Your task to perform on an android device: move a message to another label in the gmail app Image 0: 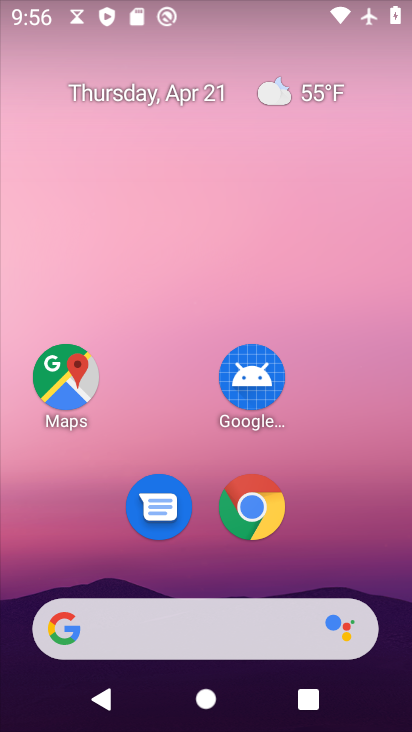
Step 0: drag from (344, 542) to (344, 184)
Your task to perform on an android device: move a message to another label in the gmail app Image 1: 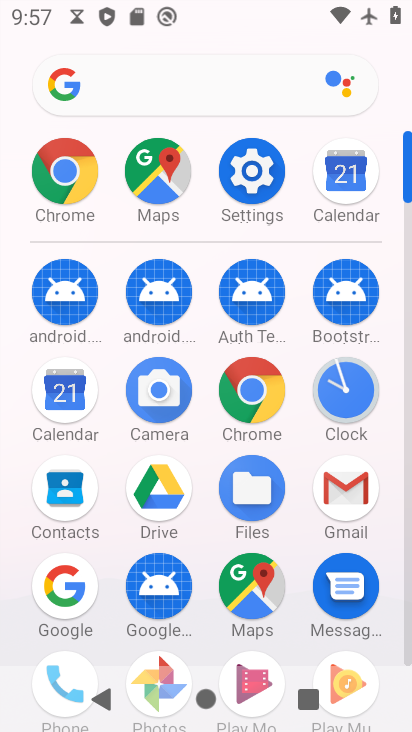
Step 1: click (348, 481)
Your task to perform on an android device: move a message to another label in the gmail app Image 2: 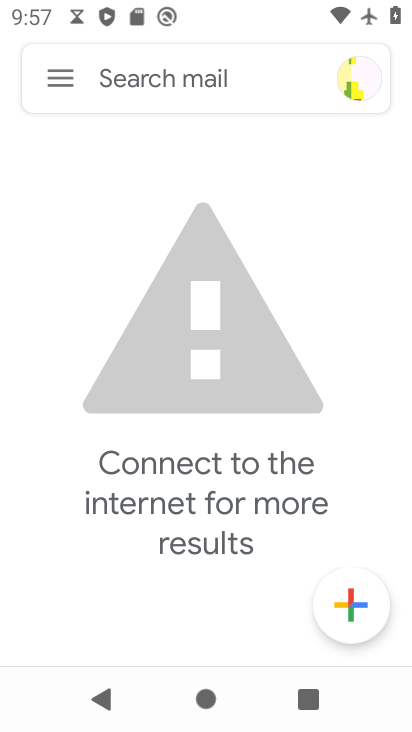
Step 2: click (52, 86)
Your task to perform on an android device: move a message to another label in the gmail app Image 3: 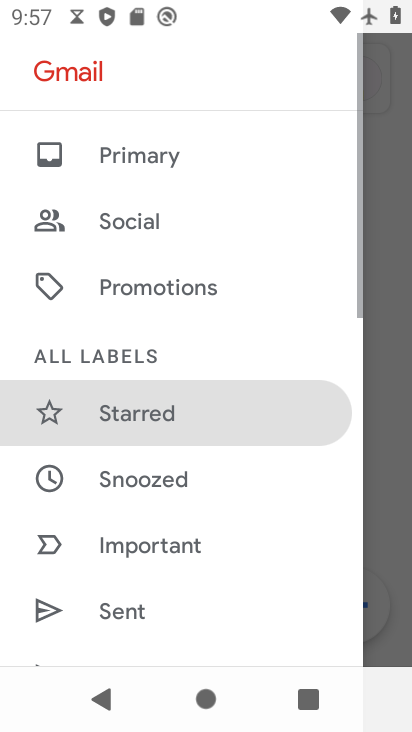
Step 3: drag from (172, 585) to (210, 151)
Your task to perform on an android device: move a message to another label in the gmail app Image 4: 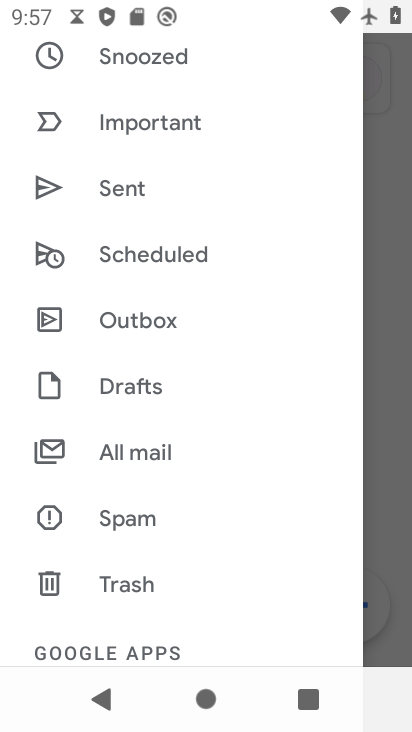
Step 4: click (128, 442)
Your task to perform on an android device: move a message to another label in the gmail app Image 5: 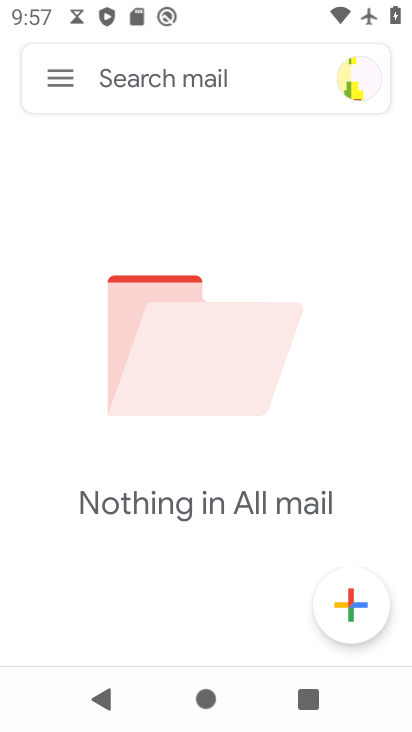
Step 5: click (43, 64)
Your task to perform on an android device: move a message to another label in the gmail app Image 6: 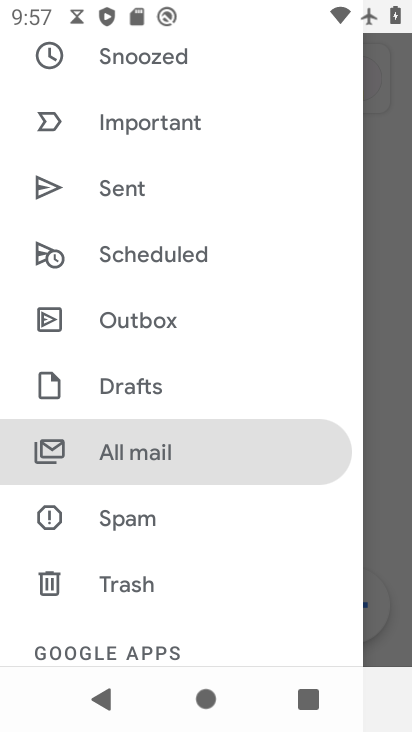
Step 6: click (213, 452)
Your task to perform on an android device: move a message to another label in the gmail app Image 7: 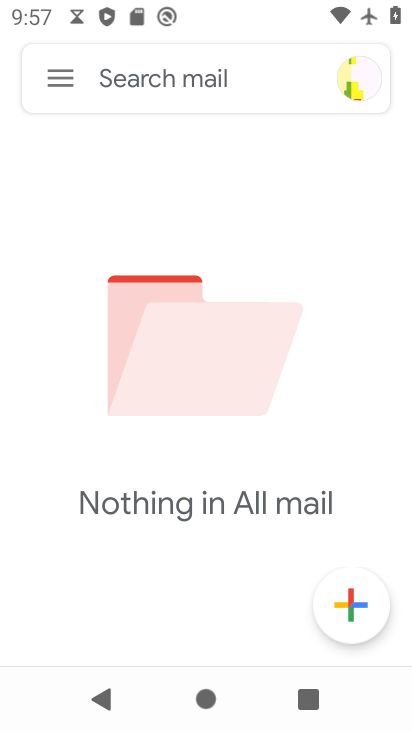
Step 7: task complete